Your task to perform on an android device: add a contact in the contacts app Image 0: 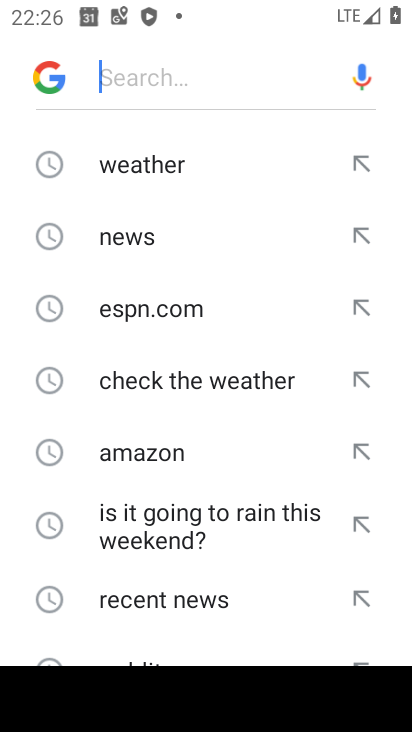
Step 0: press home button
Your task to perform on an android device: add a contact in the contacts app Image 1: 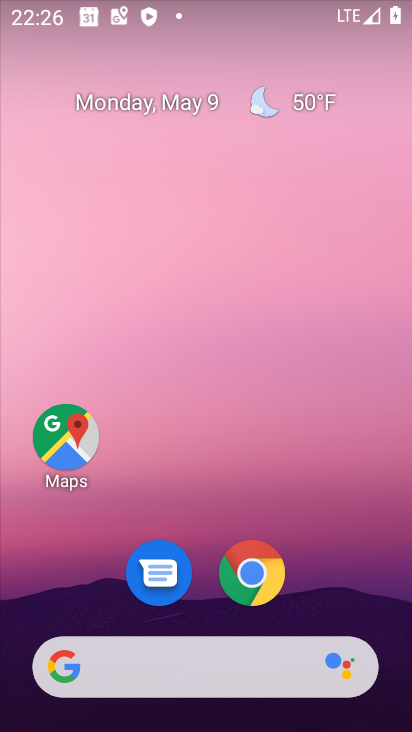
Step 1: drag from (335, 560) to (309, 184)
Your task to perform on an android device: add a contact in the contacts app Image 2: 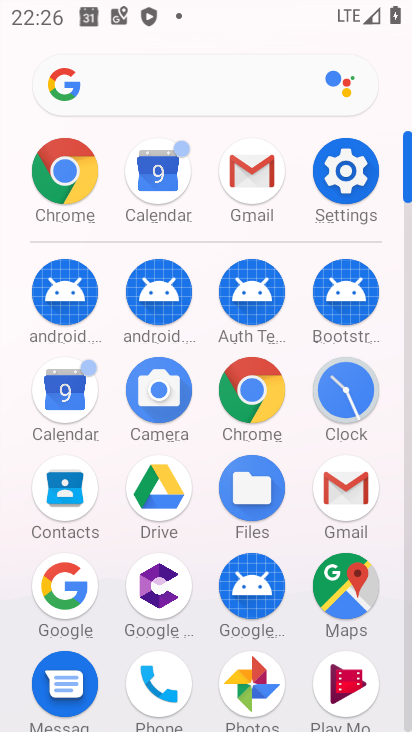
Step 2: click (76, 489)
Your task to perform on an android device: add a contact in the contacts app Image 3: 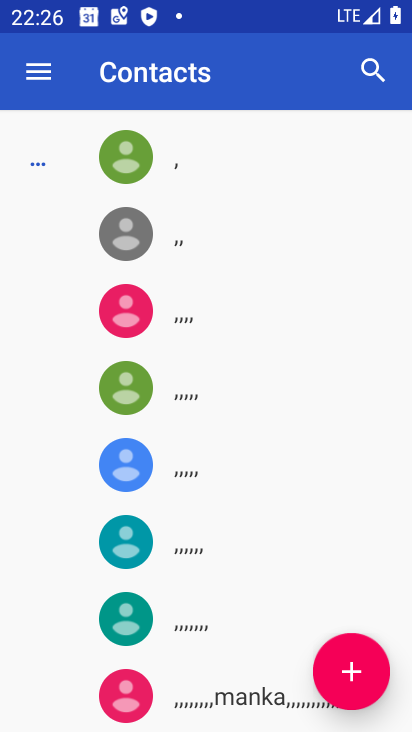
Step 3: click (340, 673)
Your task to perform on an android device: add a contact in the contacts app Image 4: 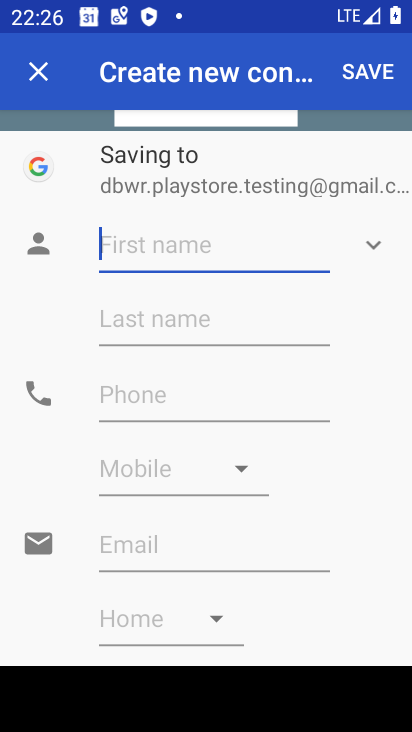
Step 4: click (281, 256)
Your task to perform on an android device: add a contact in the contacts app Image 5: 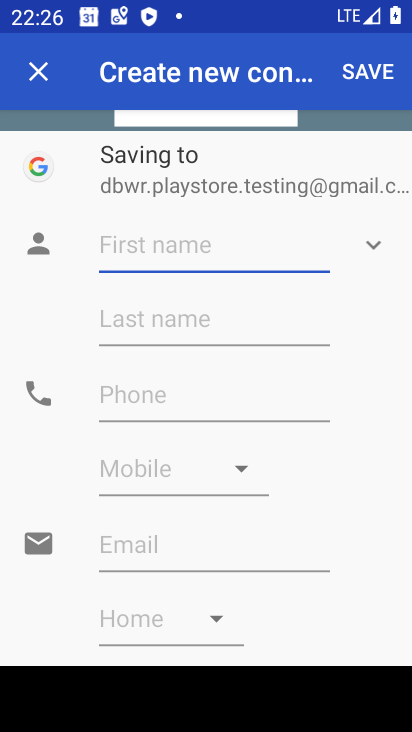
Step 5: type "gggffff"
Your task to perform on an android device: add a contact in the contacts app Image 6: 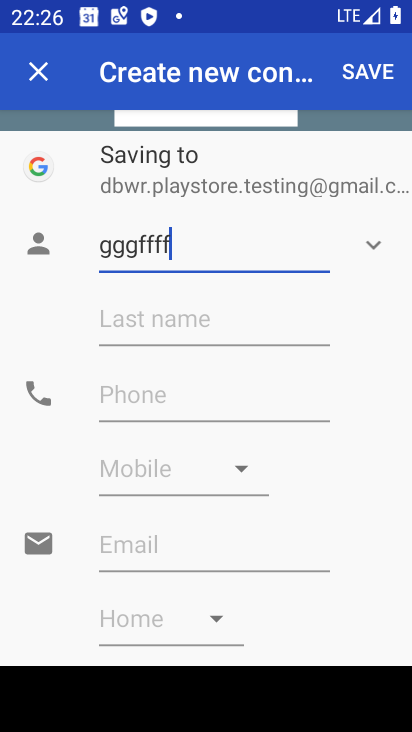
Step 6: type ""
Your task to perform on an android device: add a contact in the contacts app Image 7: 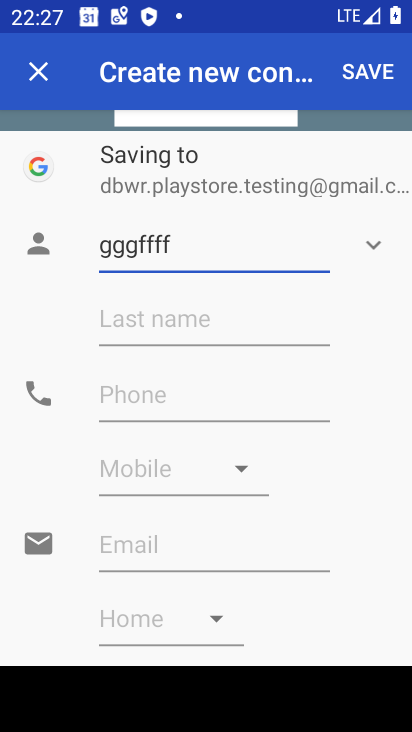
Step 7: click (381, 72)
Your task to perform on an android device: add a contact in the contacts app Image 8: 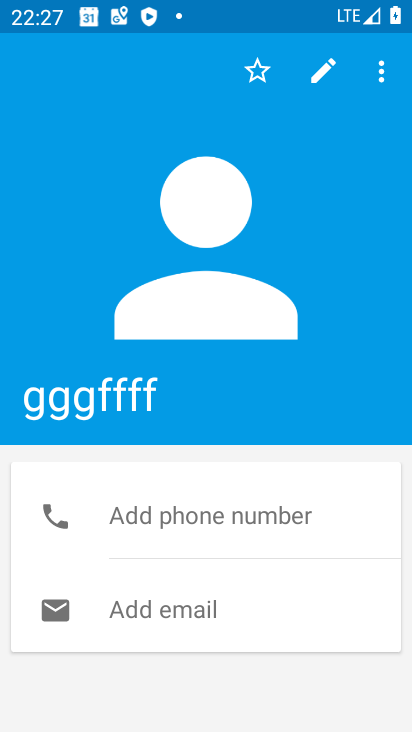
Step 8: task complete